Your task to perform on an android device: Go to Google maps Image 0: 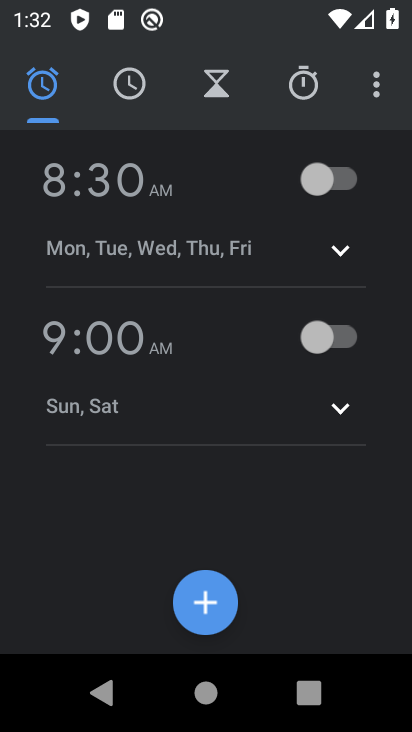
Step 0: press home button
Your task to perform on an android device: Go to Google maps Image 1: 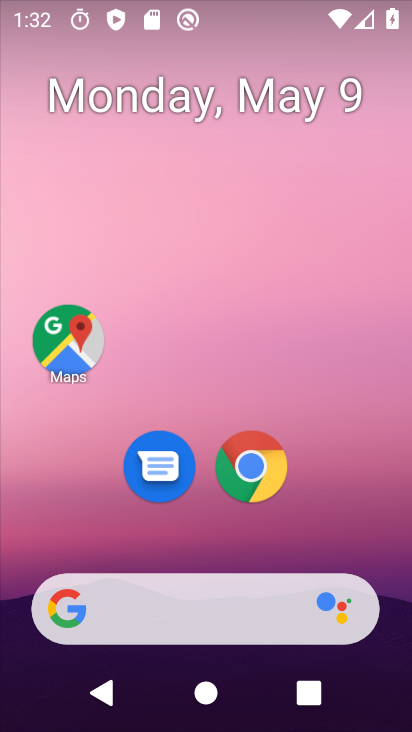
Step 1: drag from (192, 629) to (228, 306)
Your task to perform on an android device: Go to Google maps Image 2: 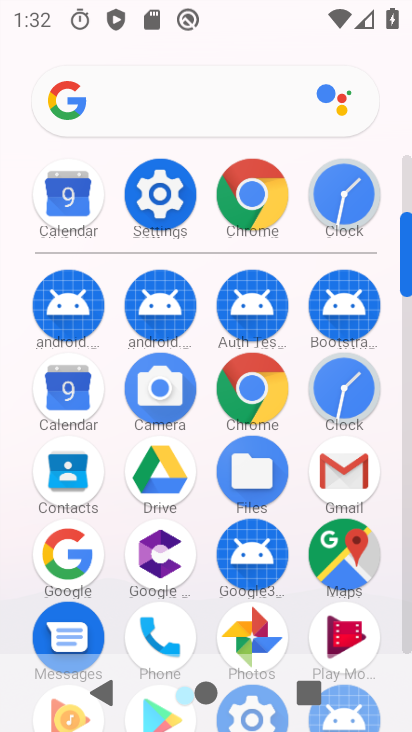
Step 2: click (346, 536)
Your task to perform on an android device: Go to Google maps Image 3: 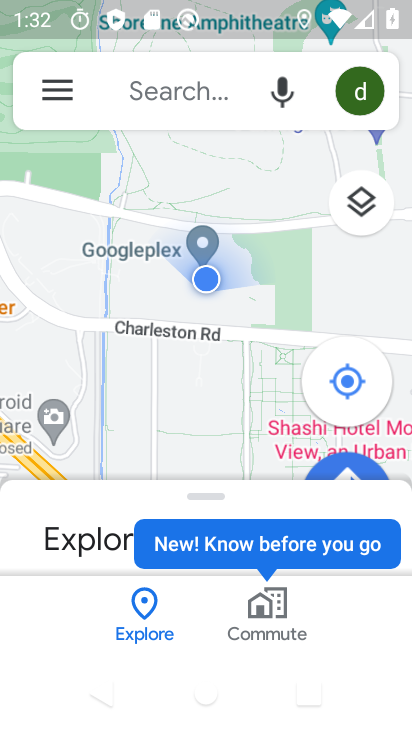
Step 3: task complete